Your task to perform on an android device: check battery use Image 0: 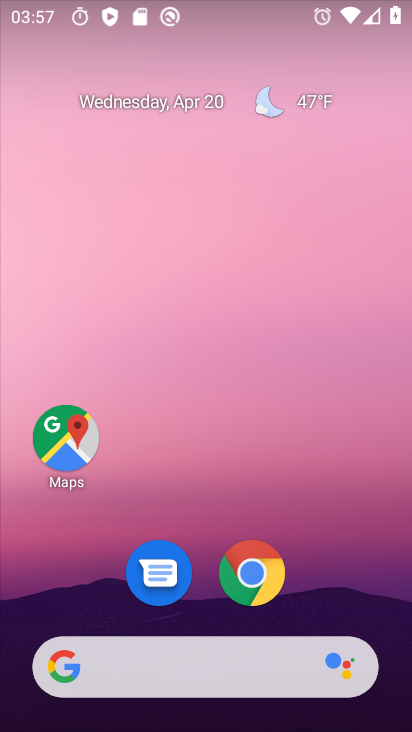
Step 0: drag from (215, 723) to (194, 185)
Your task to perform on an android device: check battery use Image 1: 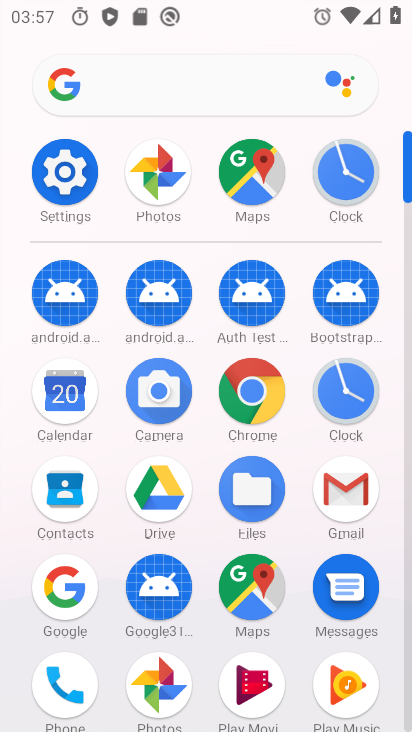
Step 1: click (66, 168)
Your task to perform on an android device: check battery use Image 2: 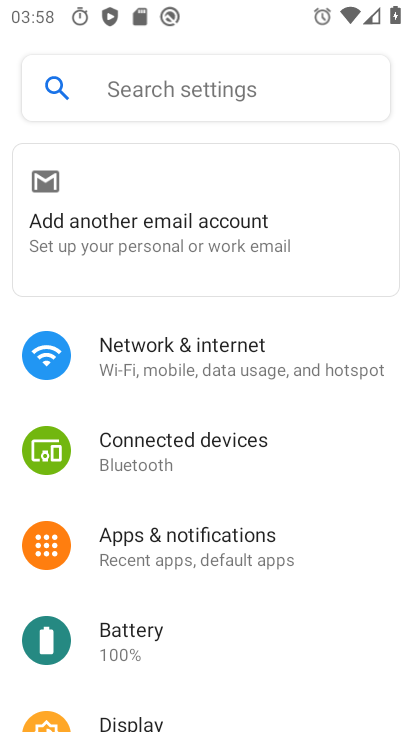
Step 2: click (129, 640)
Your task to perform on an android device: check battery use Image 3: 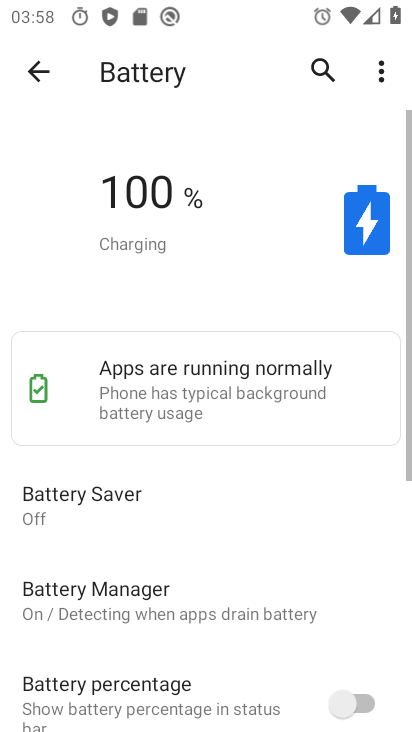
Step 3: click (379, 75)
Your task to perform on an android device: check battery use Image 4: 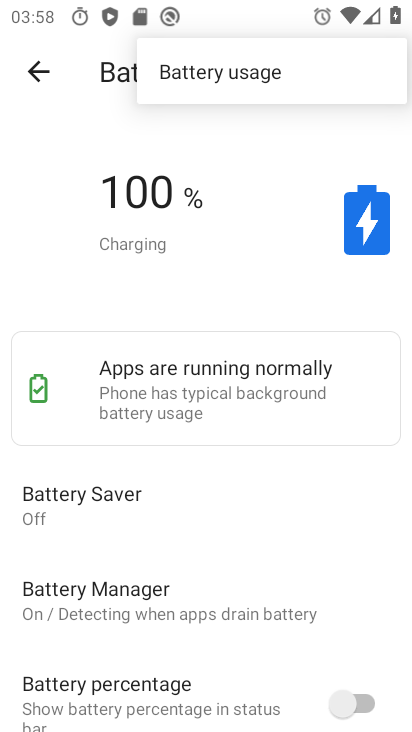
Step 4: click (203, 75)
Your task to perform on an android device: check battery use Image 5: 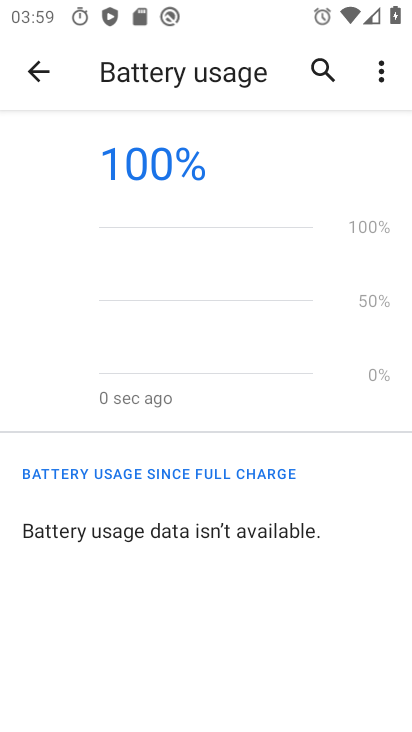
Step 5: task complete